Your task to perform on an android device: toggle priority inbox in the gmail app Image 0: 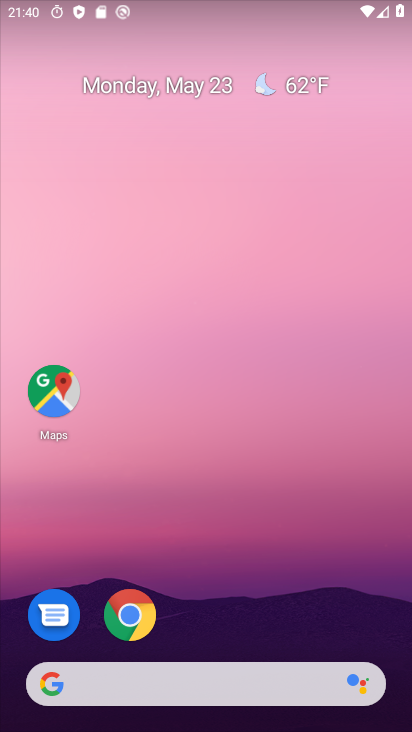
Step 0: drag from (237, 601) to (259, 36)
Your task to perform on an android device: toggle priority inbox in the gmail app Image 1: 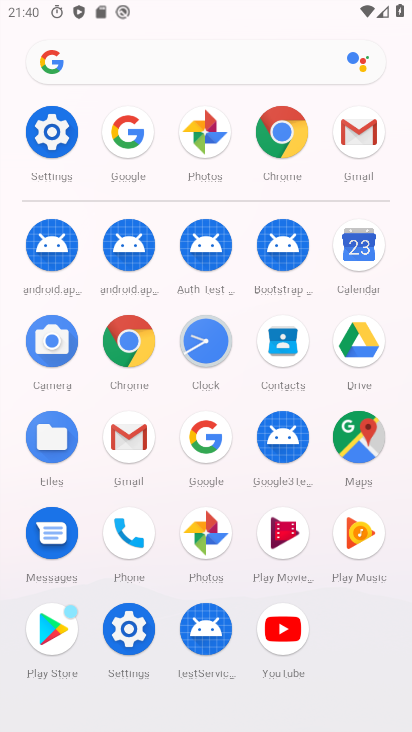
Step 1: click (130, 441)
Your task to perform on an android device: toggle priority inbox in the gmail app Image 2: 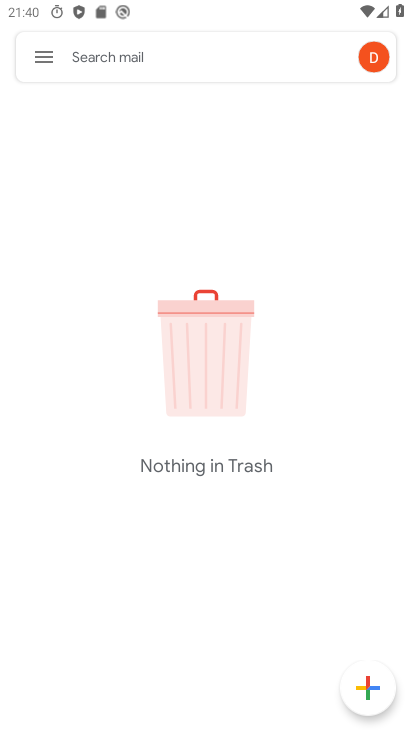
Step 2: click (42, 63)
Your task to perform on an android device: toggle priority inbox in the gmail app Image 3: 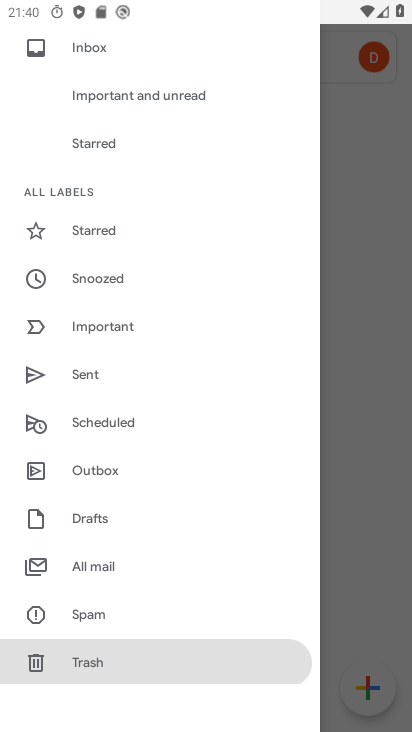
Step 3: drag from (188, 594) to (157, 166)
Your task to perform on an android device: toggle priority inbox in the gmail app Image 4: 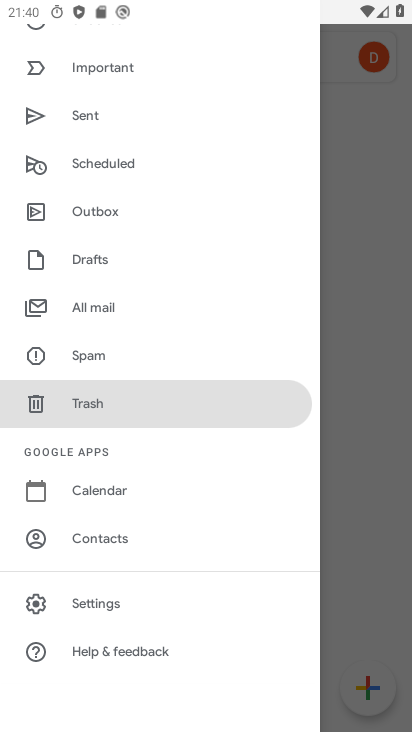
Step 4: click (52, 602)
Your task to perform on an android device: toggle priority inbox in the gmail app Image 5: 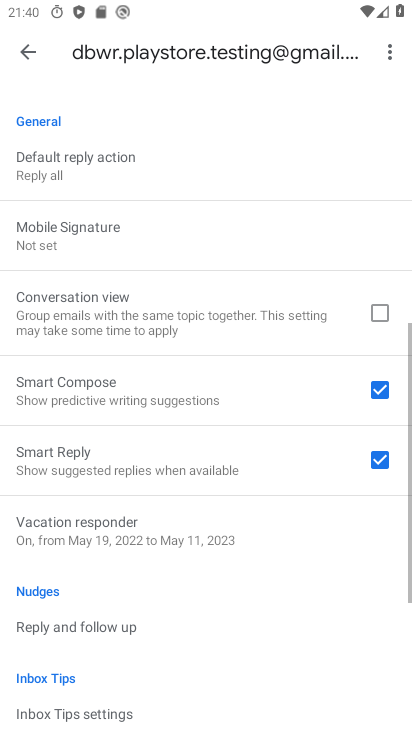
Step 5: drag from (199, 614) to (205, 672)
Your task to perform on an android device: toggle priority inbox in the gmail app Image 6: 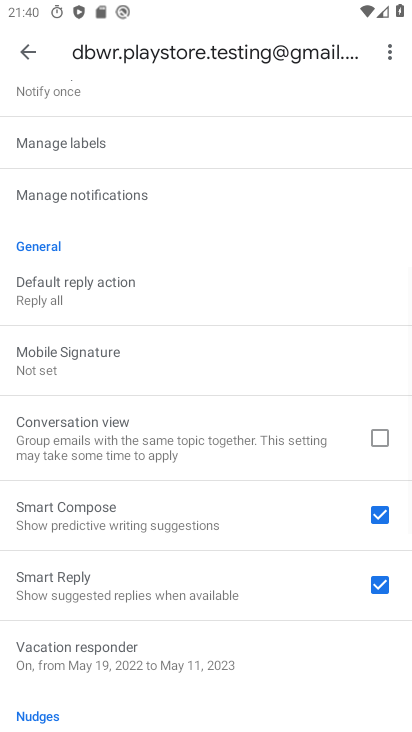
Step 6: drag from (126, 173) to (159, 493)
Your task to perform on an android device: toggle priority inbox in the gmail app Image 7: 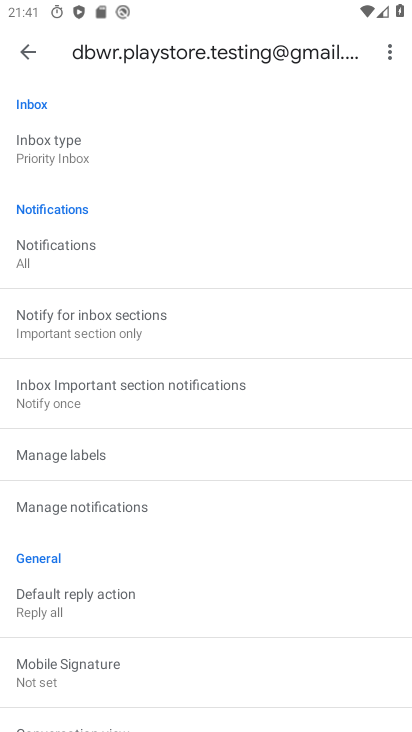
Step 7: click (73, 147)
Your task to perform on an android device: toggle priority inbox in the gmail app Image 8: 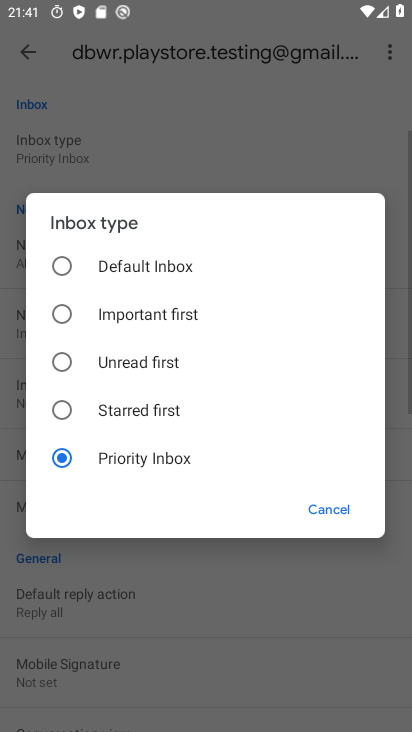
Step 8: click (64, 268)
Your task to perform on an android device: toggle priority inbox in the gmail app Image 9: 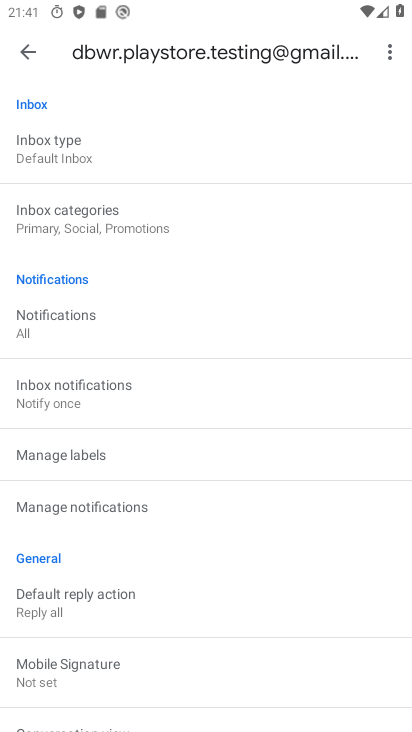
Step 9: task complete